Your task to perform on an android device: Where can I buy a nice beach sandals? Image 0: 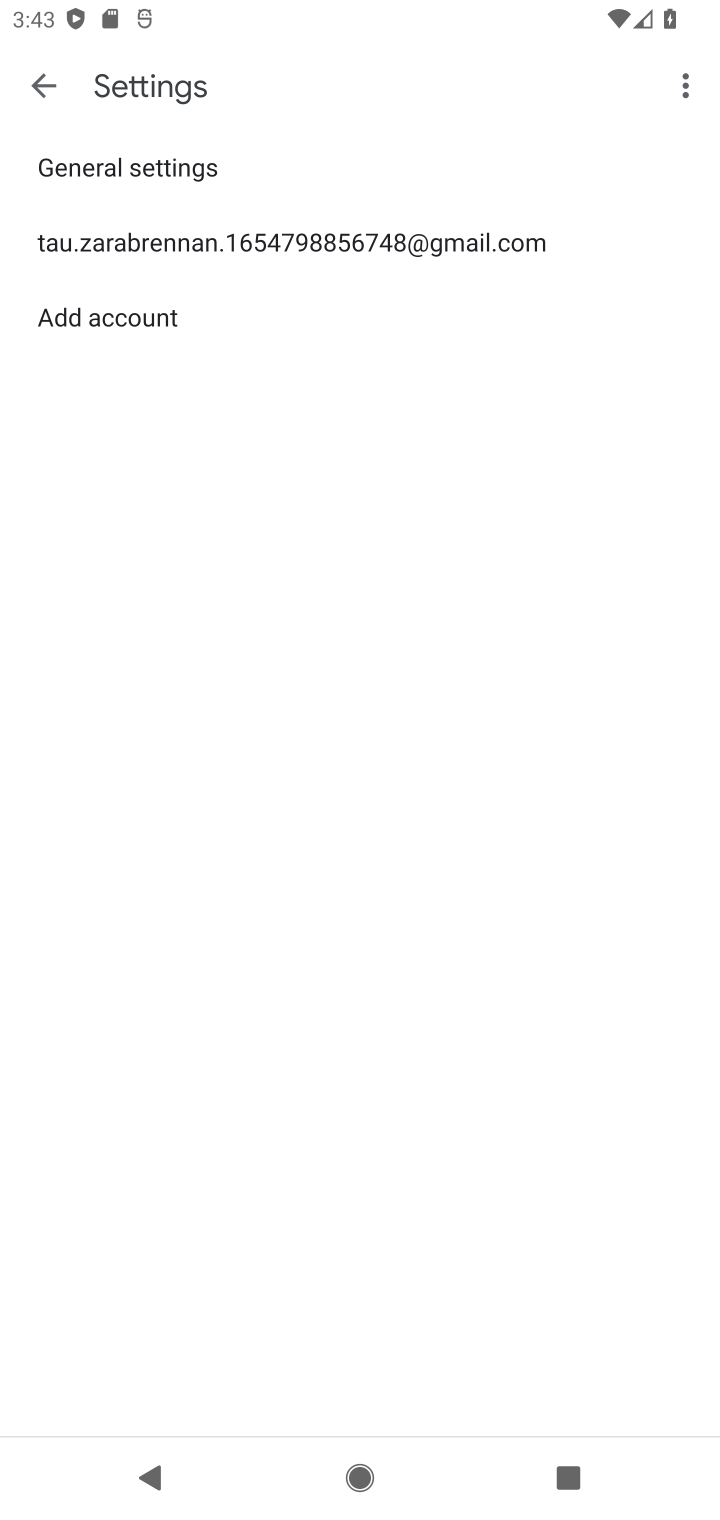
Step 0: press home button
Your task to perform on an android device: Where can I buy a nice beach sandals? Image 1: 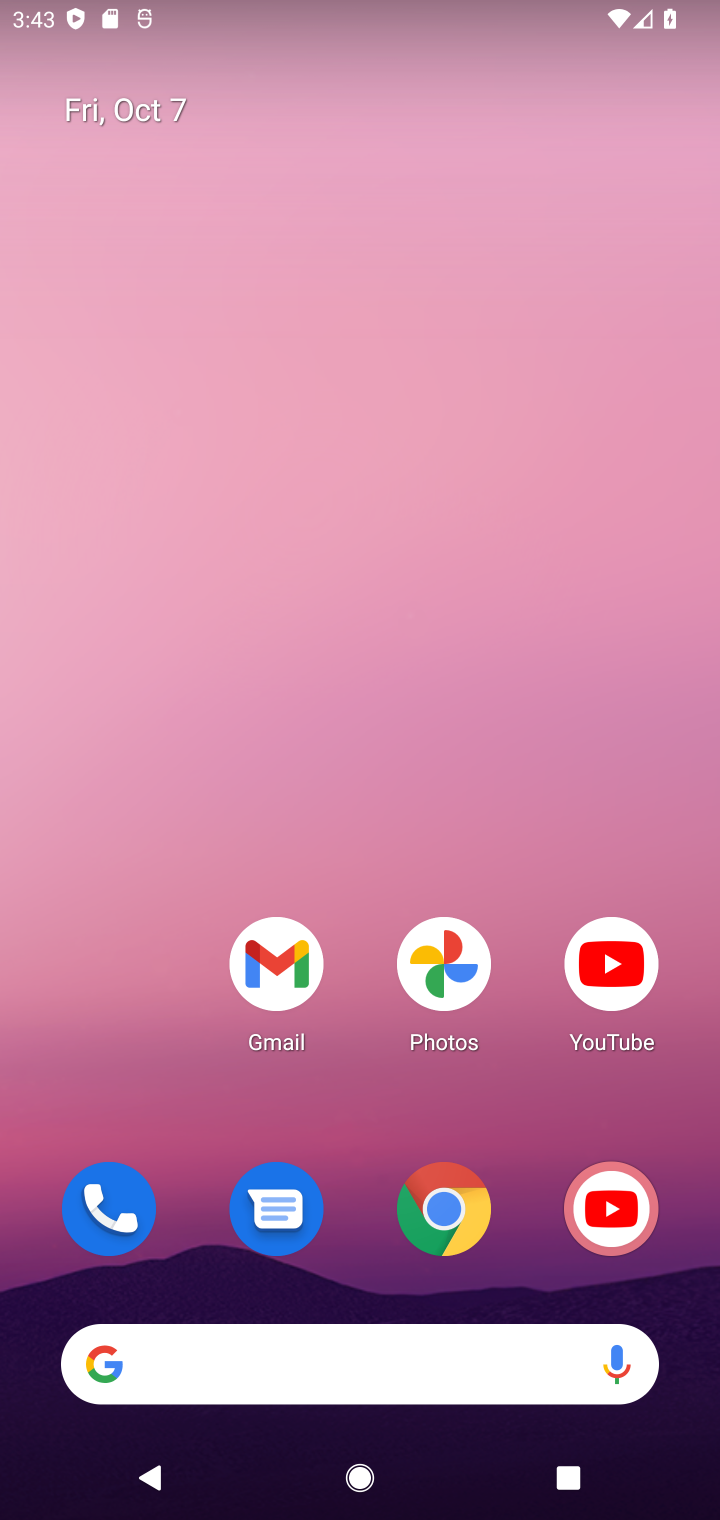
Step 1: click (433, 1375)
Your task to perform on an android device: Where can I buy a nice beach sandals? Image 2: 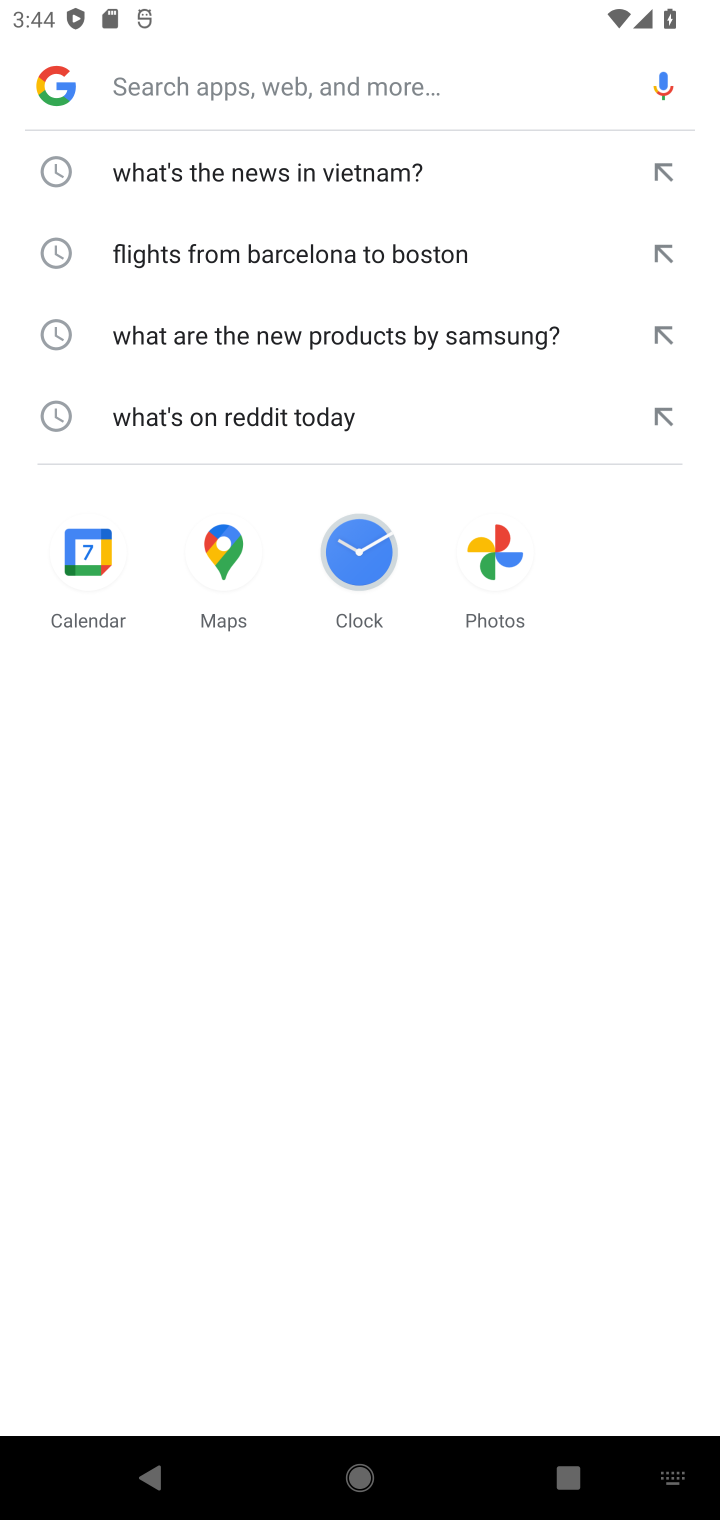
Step 2: press enter
Your task to perform on an android device: Where can I buy a nice beach sandals? Image 3: 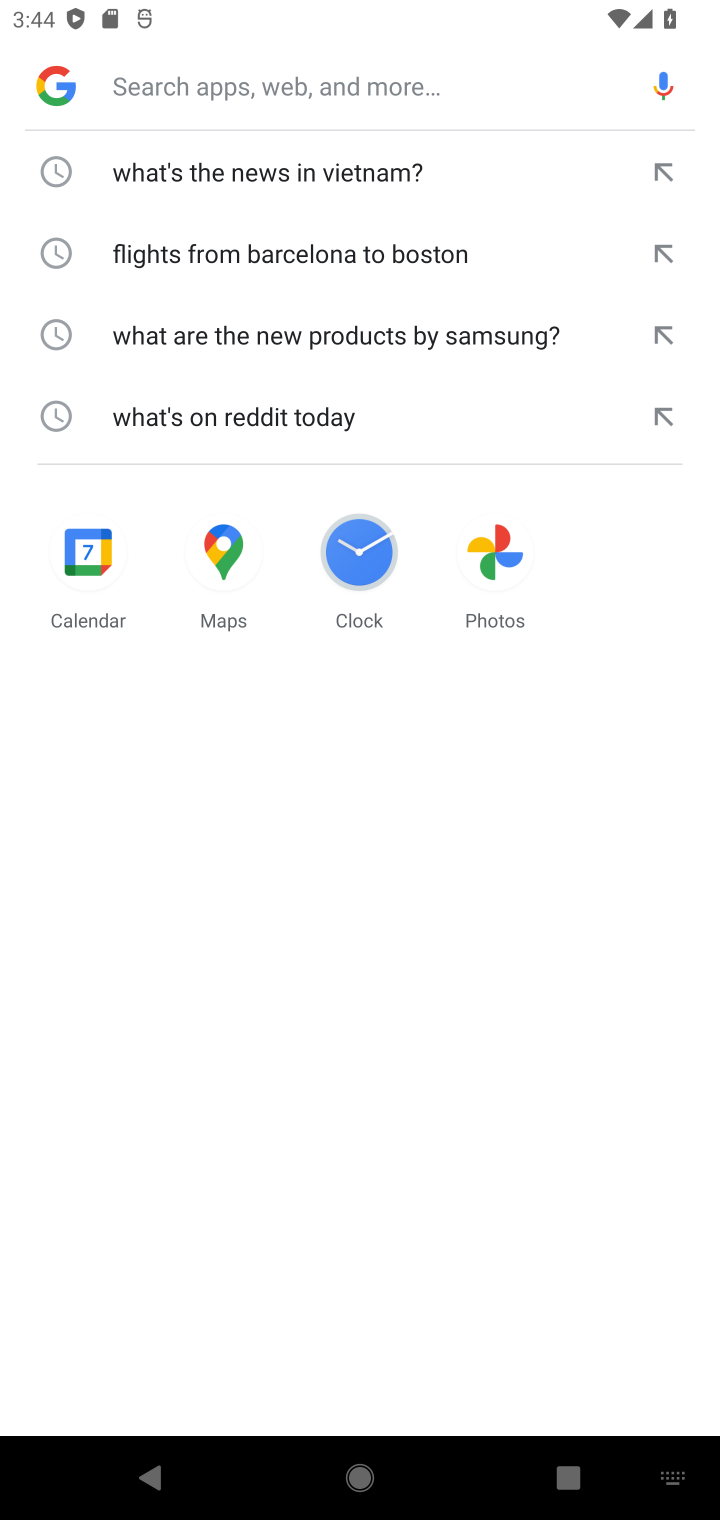
Step 3: type "Where can I buy a nice beach sandals?"
Your task to perform on an android device: Where can I buy a nice beach sandals? Image 4: 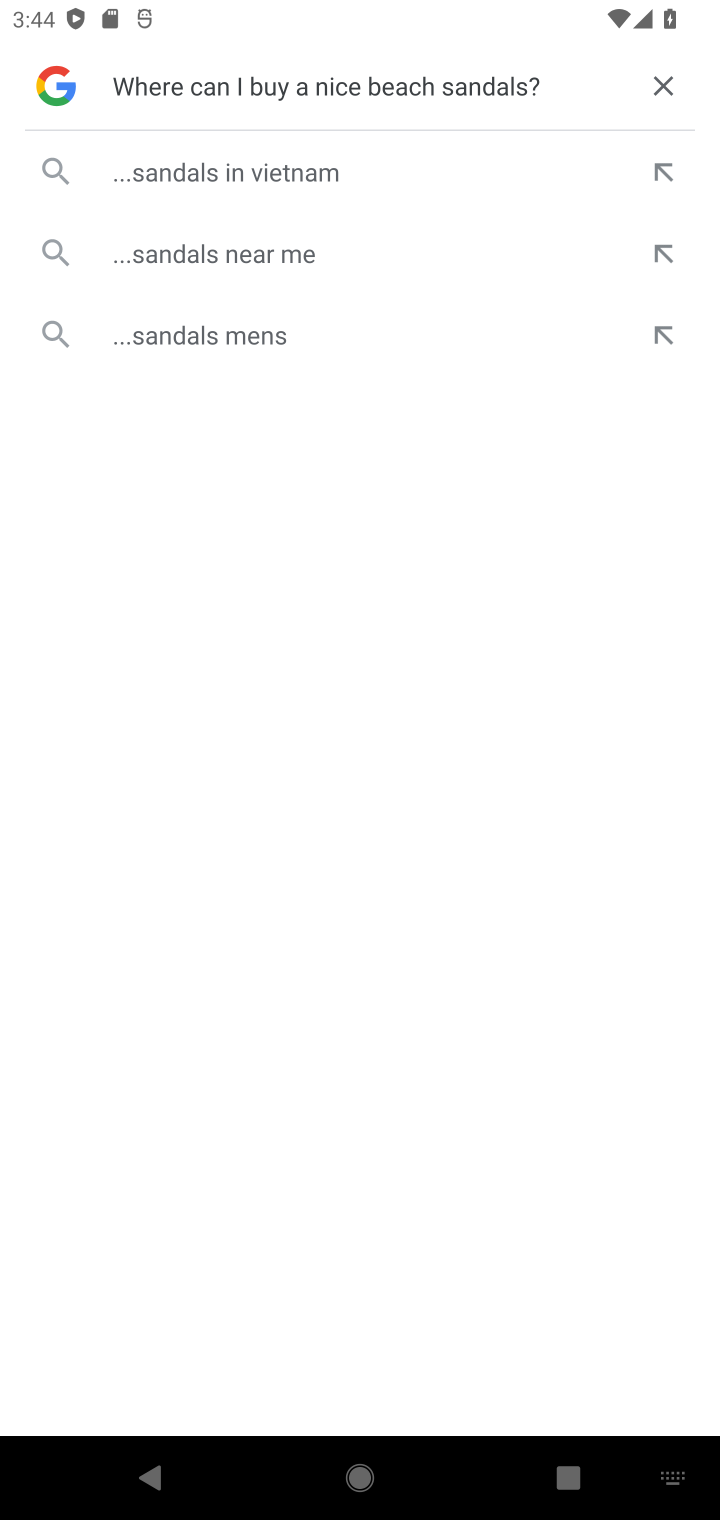
Step 4: press enter
Your task to perform on an android device: Where can I buy a nice beach sandals? Image 5: 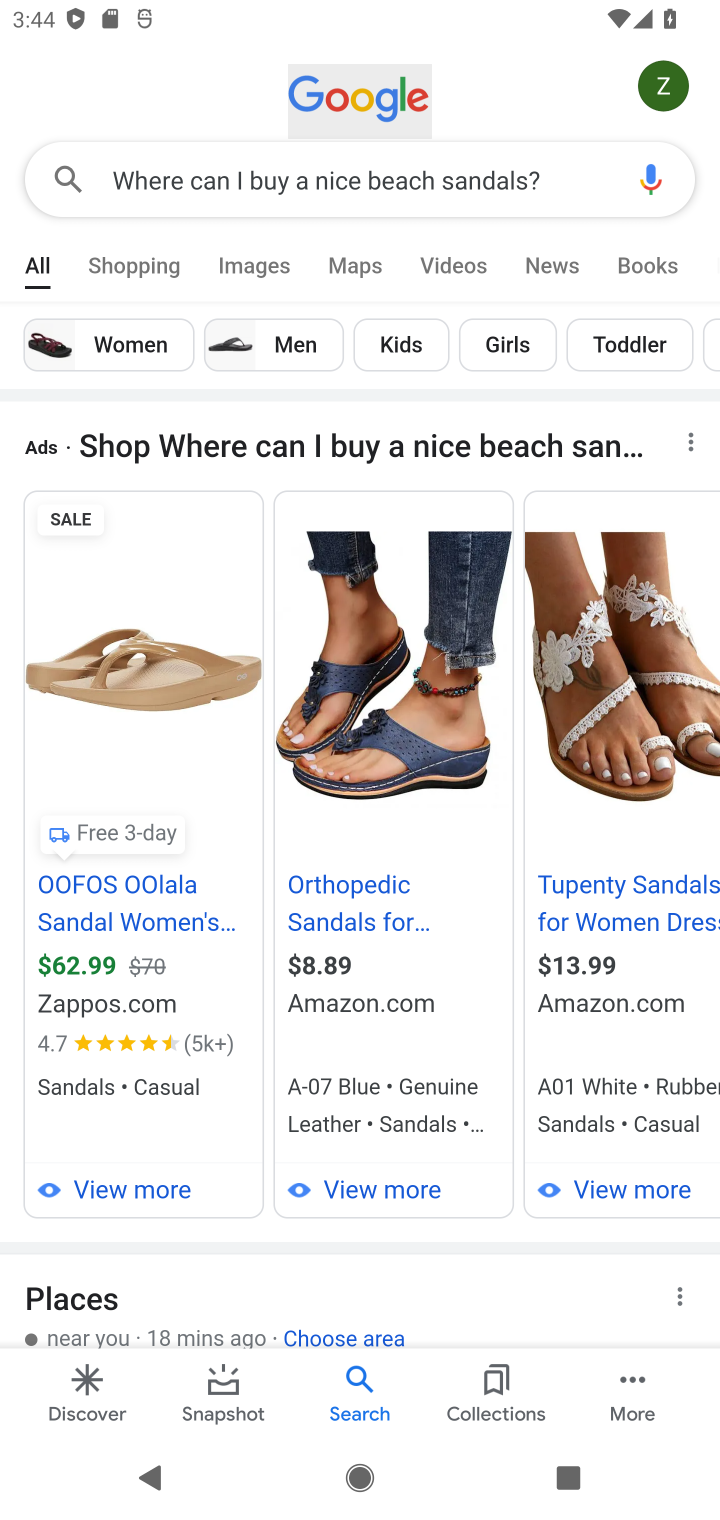
Step 5: task complete